Your task to perform on an android device: turn on the 12-hour format for clock Image 0: 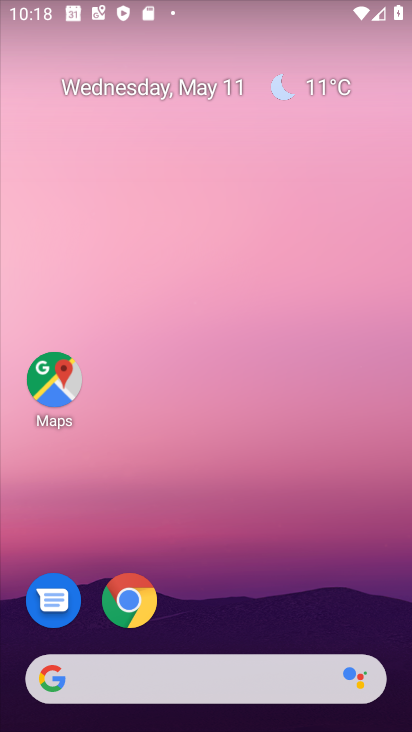
Step 0: drag from (214, 591) to (183, 319)
Your task to perform on an android device: turn on the 12-hour format for clock Image 1: 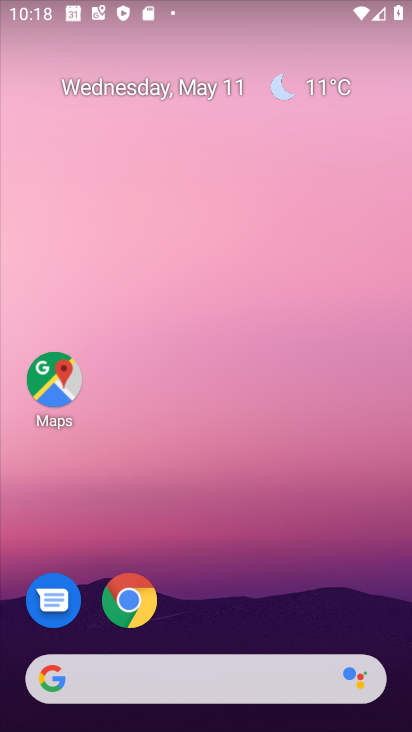
Step 1: drag from (245, 578) to (225, 145)
Your task to perform on an android device: turn on the 12-hour format for clock Image 2: 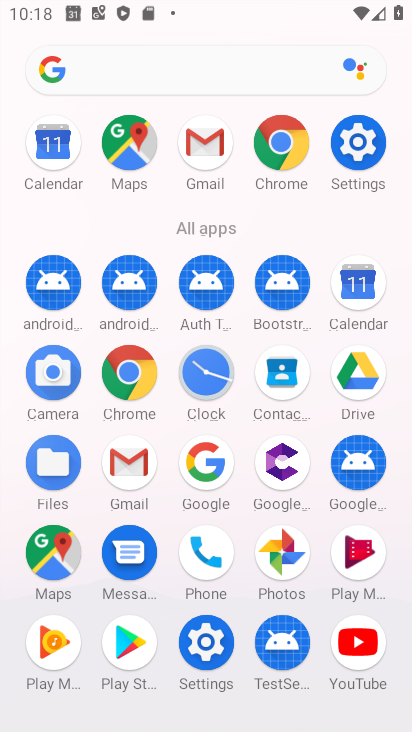
Step 2: click (211, 383)
Your task to perform on an android device: turn on the 12-hour format for clock Image 3: 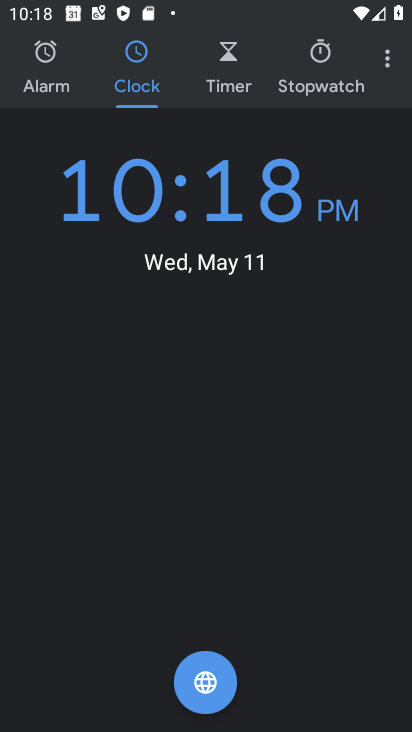
Step 3: click (385, 51)
Your task to perform on an android device: turn on the 12-hour format for clock Image 4: 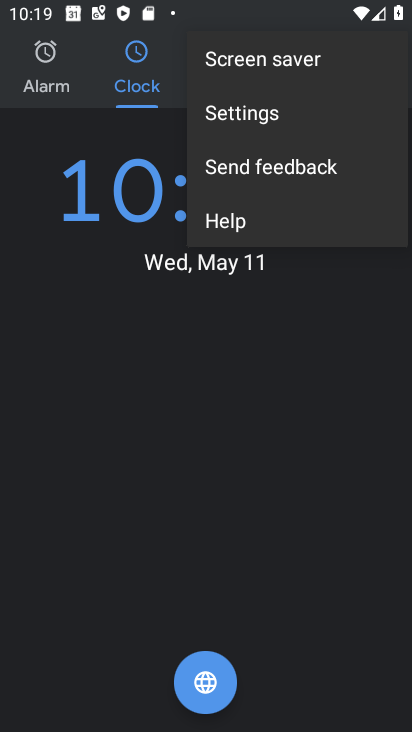
Step 4: click (347, 118)
Your task to perform on an android device: turn on the 12-hour format for clock Image 5: 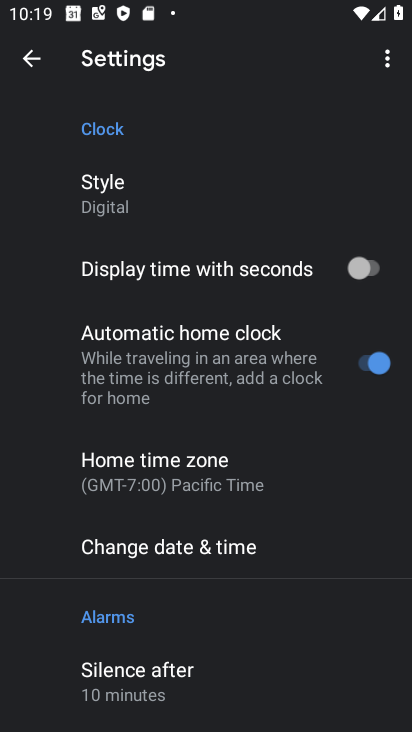
Step 5: click (192, 546)
Your task to perform on an android device: turn on the 12-hour format for clock Image 6: 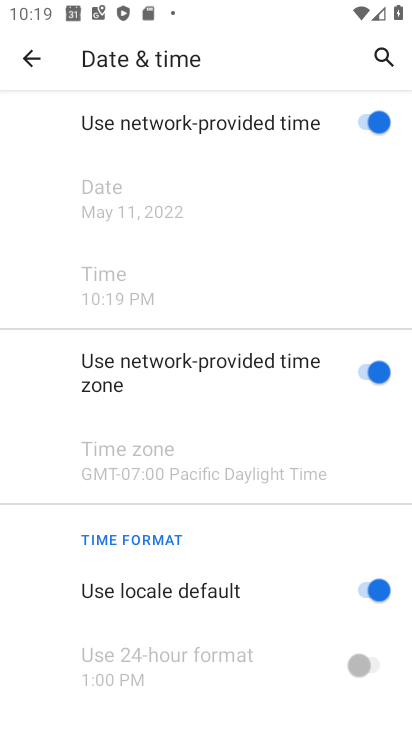
Step 6: drag from (222, 652) to (219, 187)
Your task to perform on an android device: turn on the 12-hour format for clock Image 7: 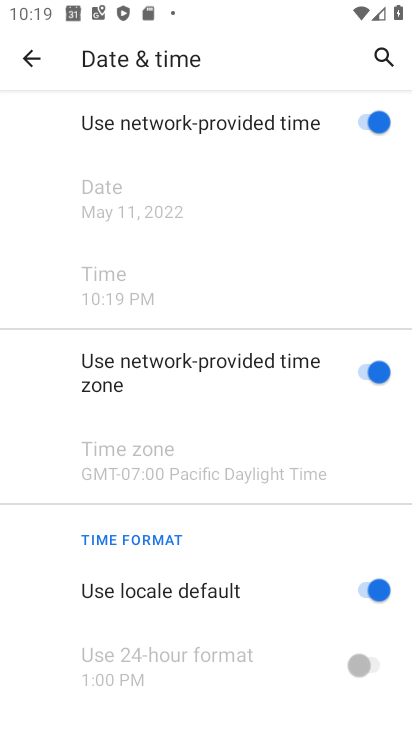
Step 7: click (12, 354)
Your task to perform on an android device: turn on the 12-hour format for clock Image 8: 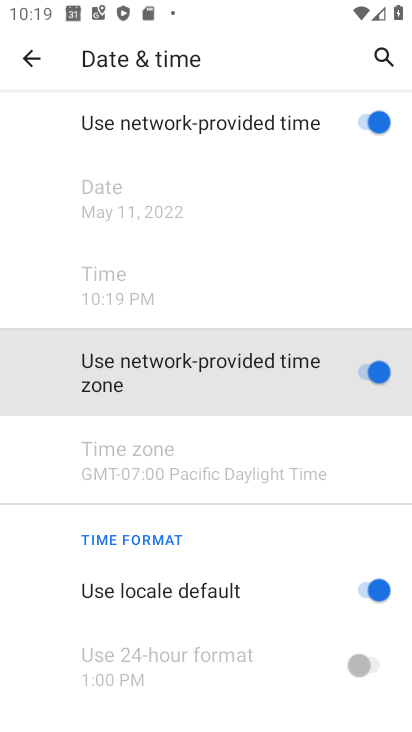
Step 8: task complete